Your task to perform on an android device: toggle javascript in the chrome app Image 0: 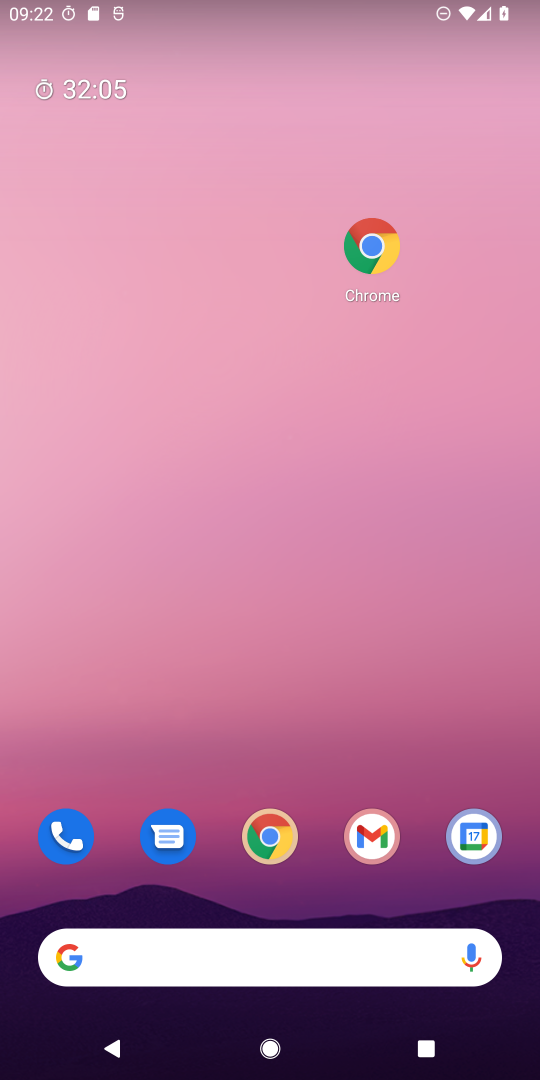
Step 0: drag from (221, 870) to (239, 426)
Your task to perform on an android device: toggle javascript in the chrome app Image 1: 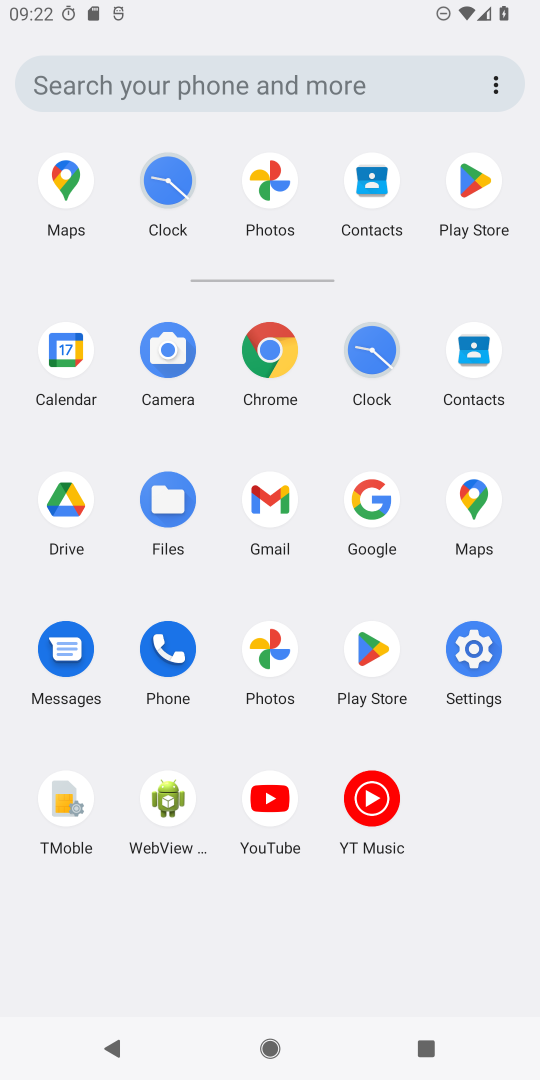
Step 1: click (269, 346)
Your task to perform on an android device: toggle javascript in the chrome app Image 2: 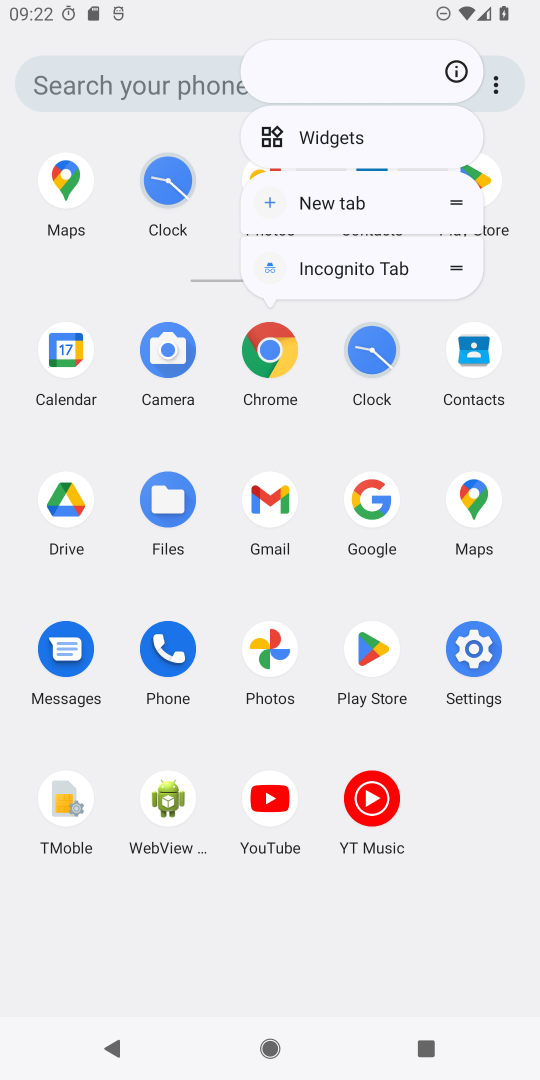
Step 2: click (269, 346)
Your task to perform on an android device: toggle javascript in the chrome app Image 3: 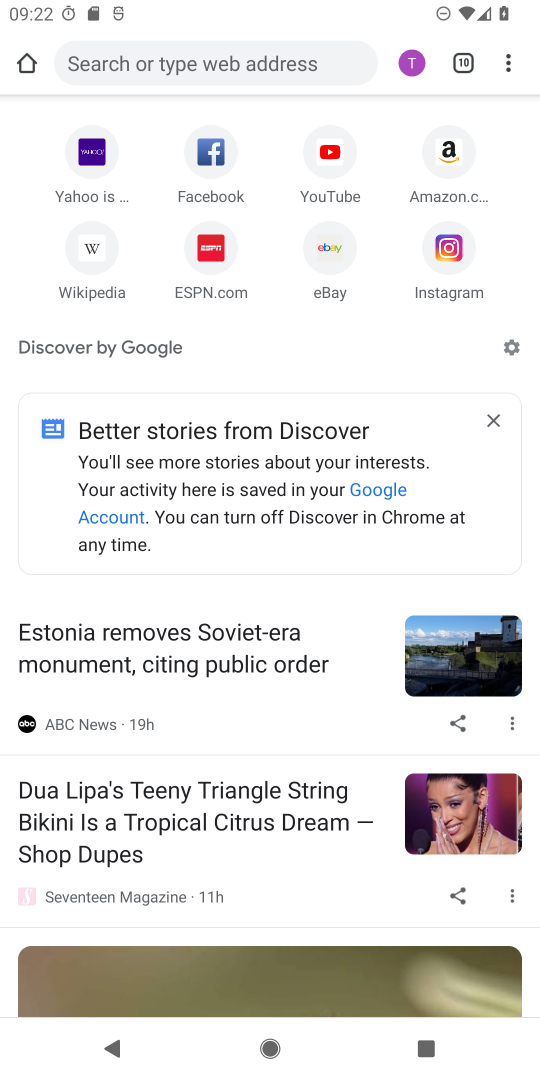
Step 3: click (497, 52)
Your task to perform on an android device: toggle javascript in the chrome app Image 4: 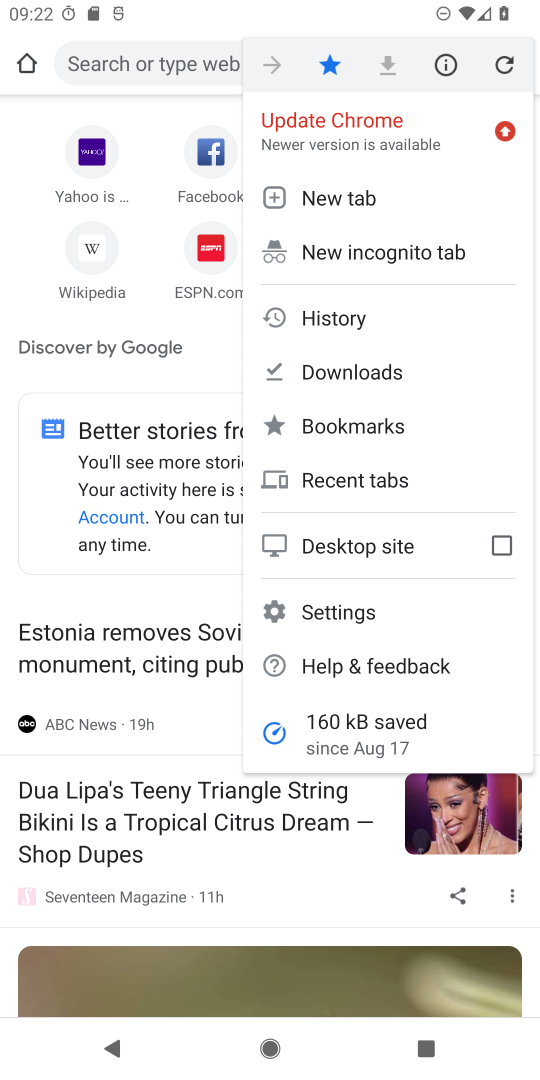
Step 4: click (352, 601)
Your task to perform on an android device: toggle javascript in the chrome app Image 5: 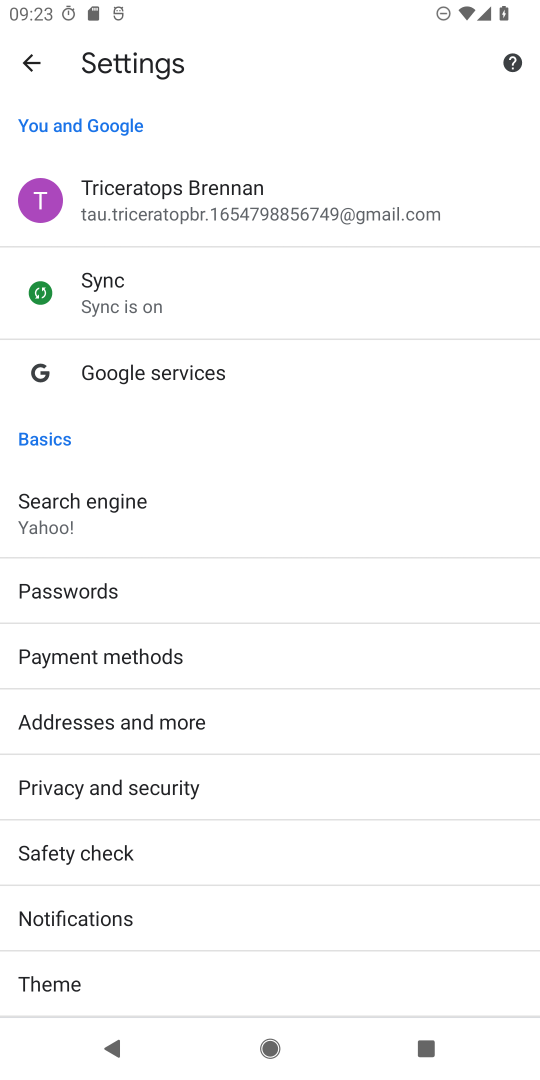
Step 5: drag from (254, 810) to (248, 314)
Your task to perform on an android device: toggle javascript in the chrome app Image 6: 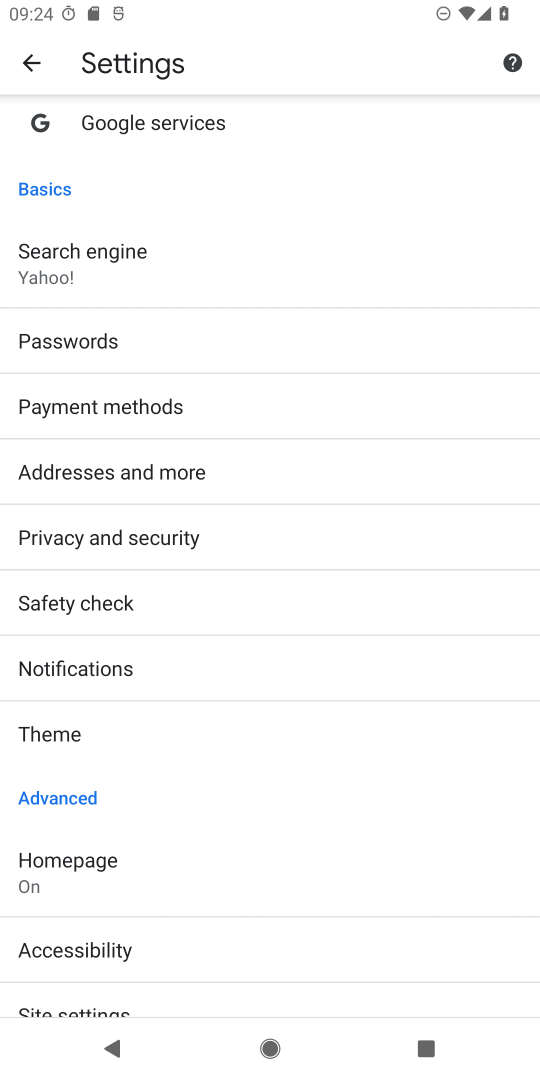
Step 6: drag from (131, 907) to (251, 337)
Your task to perform on an android device: toggle javascript in the chrome app Image 7: 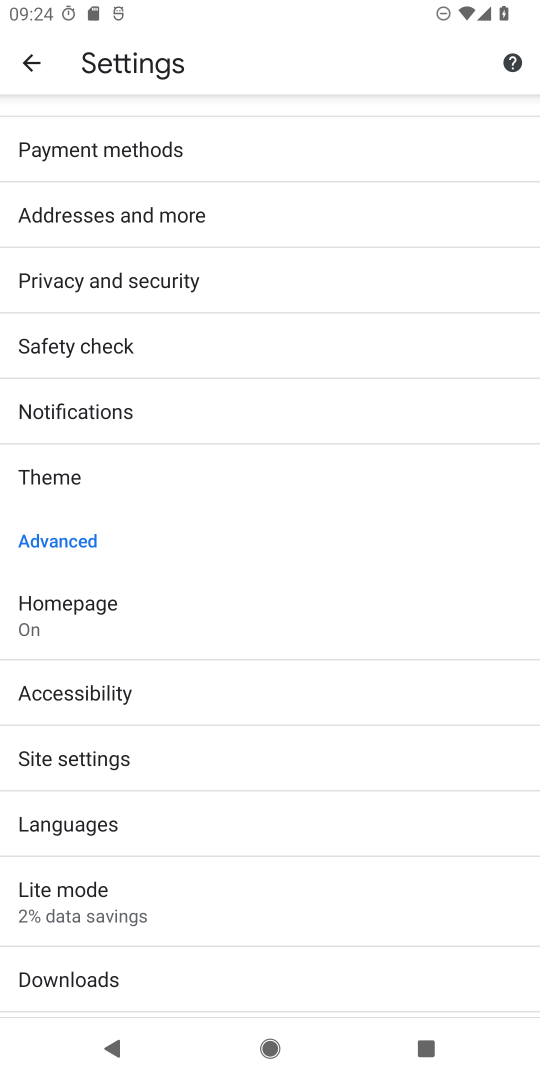
Step 7: click (142, 741)
Your task to perform on an android device: toggle javascript in the chrome app Image 8: 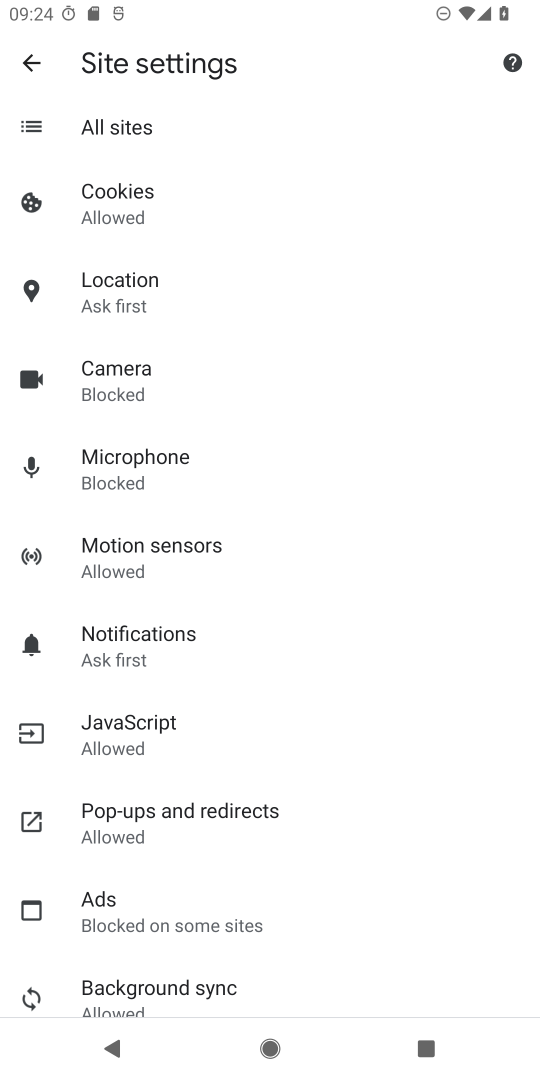
Step 8: click (179, 707)
Your task to perform on an android device: toggle javascript in the chrome app Image 9: 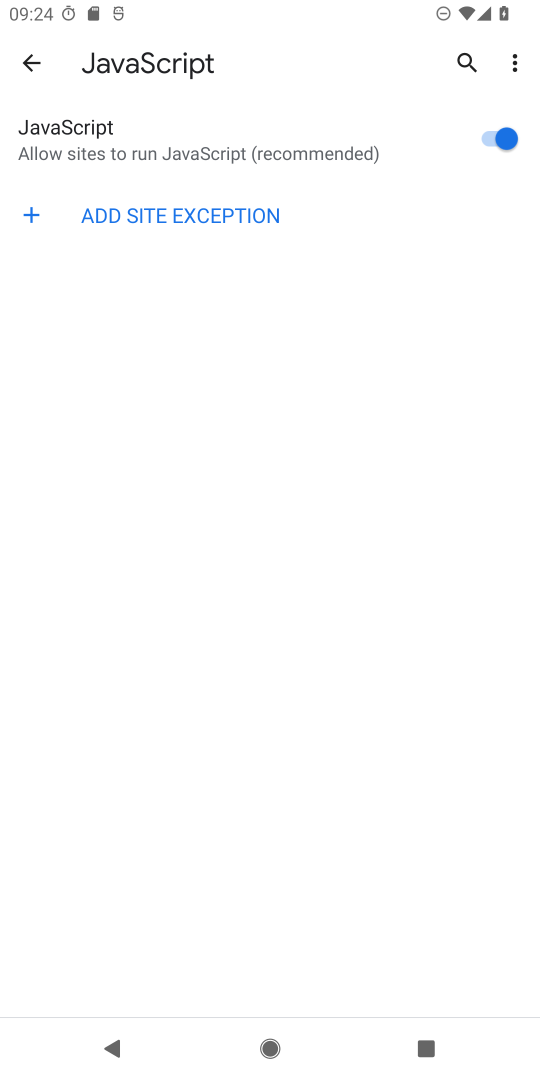
Step 9: click (483, 139)
Your task to perform on an android device: toggle javascript in the chrome app Image 10: 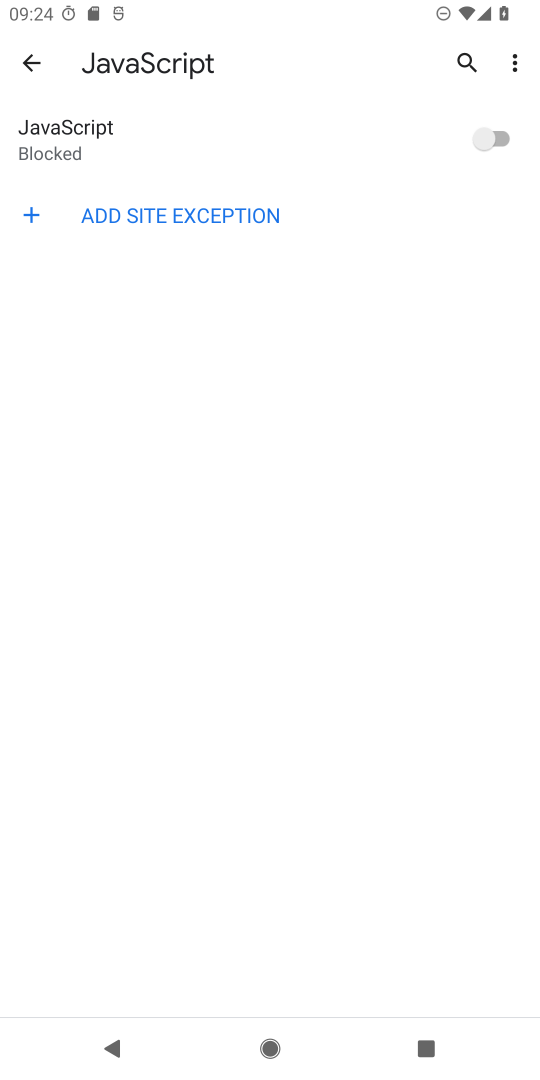
Step 10: task complete